Your task to perform on an android device: What's on my calendar tomorrow? Image 0: 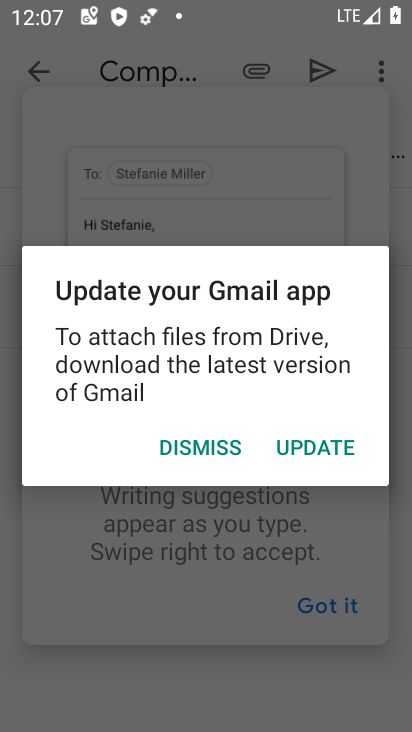
Step 0: press home button
Your task to perform on an android device: What's on my calendar tomorrow? Image 1: 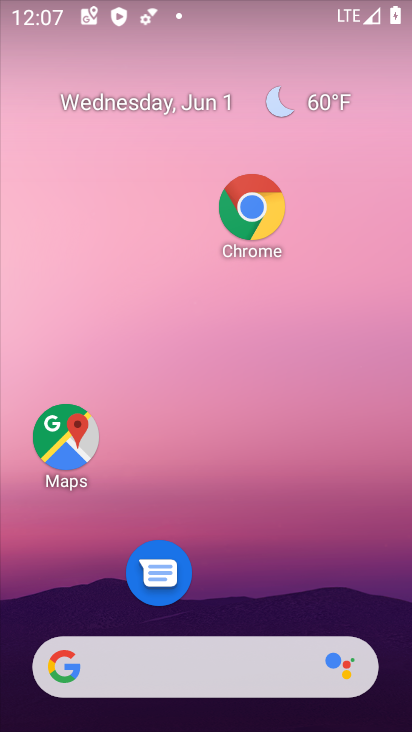
Step 1: drag from (238, 589) to (166, 170)
Your task to perform on an android device: What's on my calendar tomorrow? Image 2: 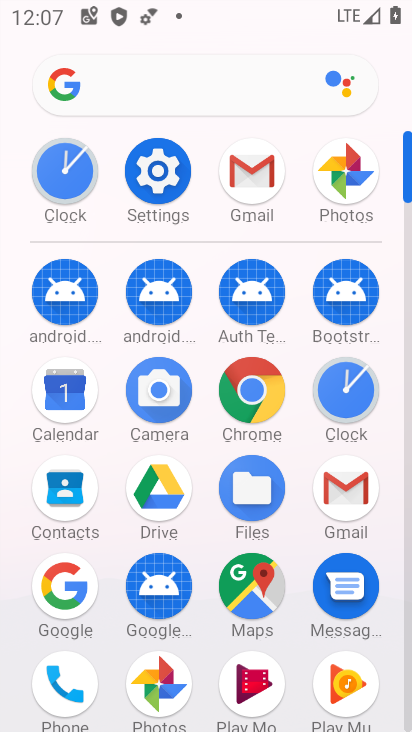
Step 2: click (69, 417)
Your task to perform on an android device: What's on my calendar tomorrow? Image 3: 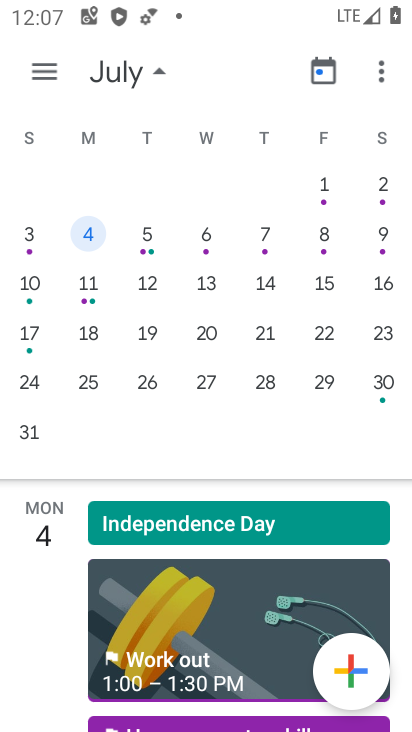
Step 3: drag from (66, 270) to (375, 261)
Your task to perform on an android device: What's on my calendar tomorrow? Image 4: 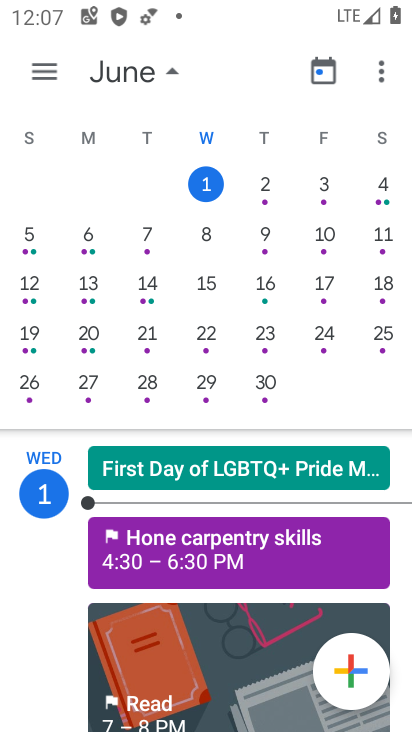
Step 4: click (371, 265)
Your task to perform on an android device: What's on my calendar tomorrow? Image 5: 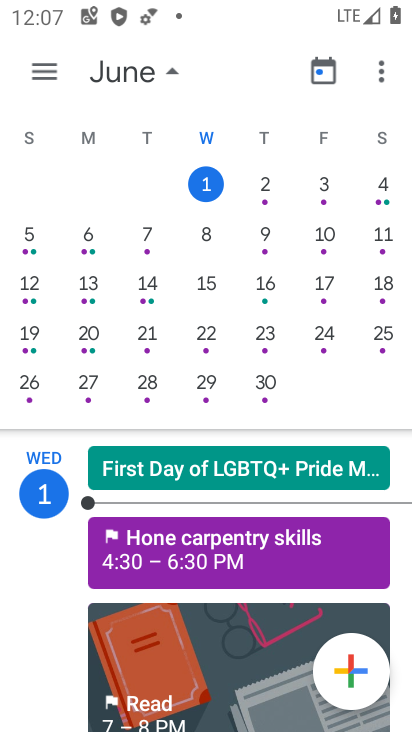
Step 5: drag from (57, 260) to (360, 240)
Your task to perform on an android device: What's on my calendar tomorrow? Image 6: 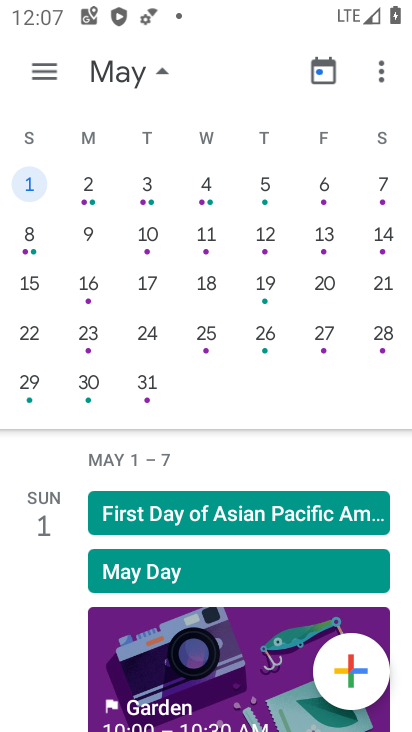
Step 6: drag from (285, 315) to (59, 319)
Your task to perform on an android device: What's on my calendar tomorrow? Image 7: 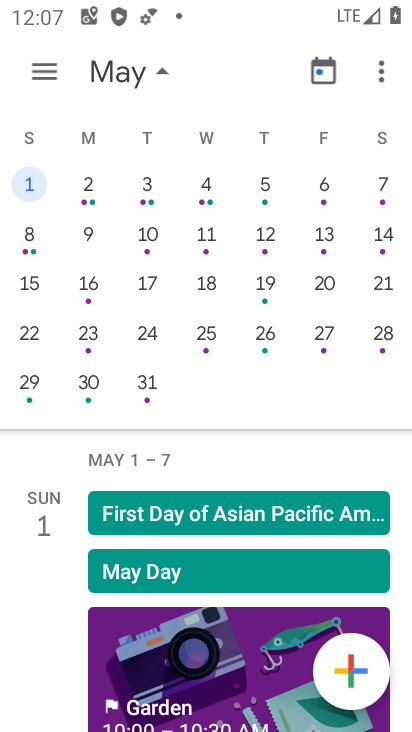
Step 7: click (59, 188)
Your task to perform on an android device: What's on my calendar tomorrow? Image 8: 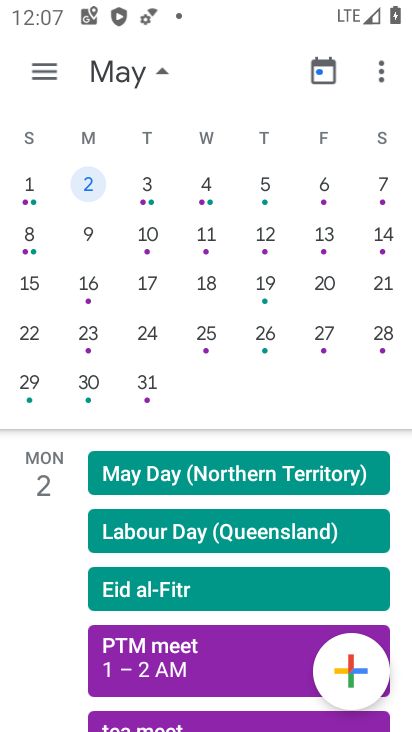
Step 8: task complete